Your task to perform on an android device: choose inbox layout in the gmail app Image 0: 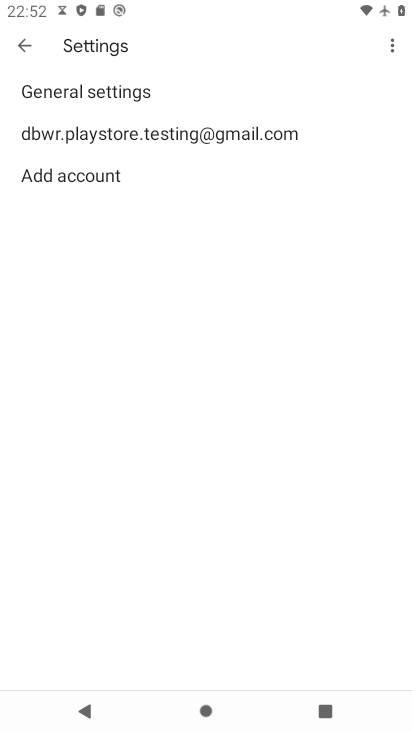
Step 0: press back button
Your task to perform on an android device: choose inbox layout in the gmail app Image 1: 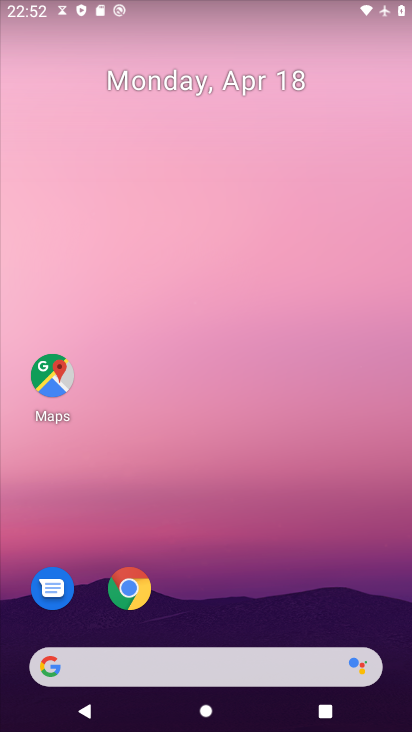
Step 1: drag from (282, 576) to (253, 17)
Your task to perform on an android device: choose inbox layout in the gmail app Image 2: 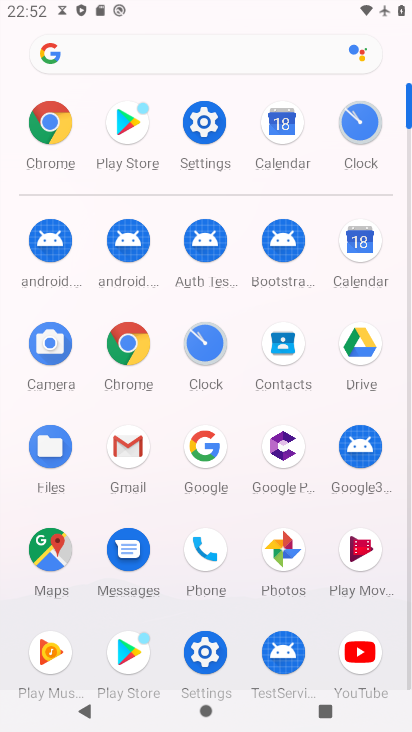
Step 2: click (127, 446)
Your task to perform on an android device: choose inbox layout in the gmail app Image 3: 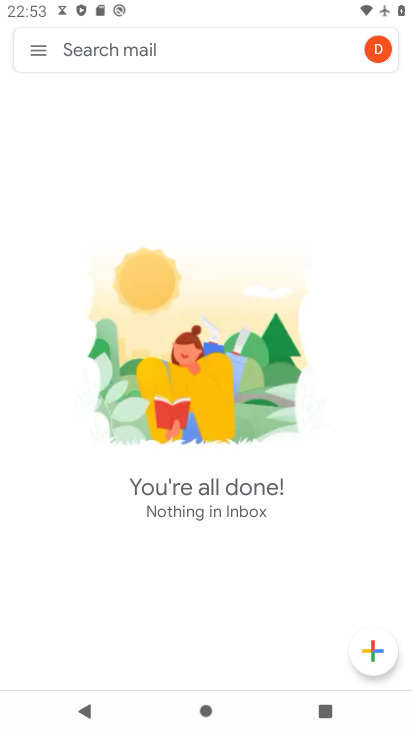
Step 3: click (48, 50)
Your task to perform on an android device: choose inbox layout in the gmail app Image 4: 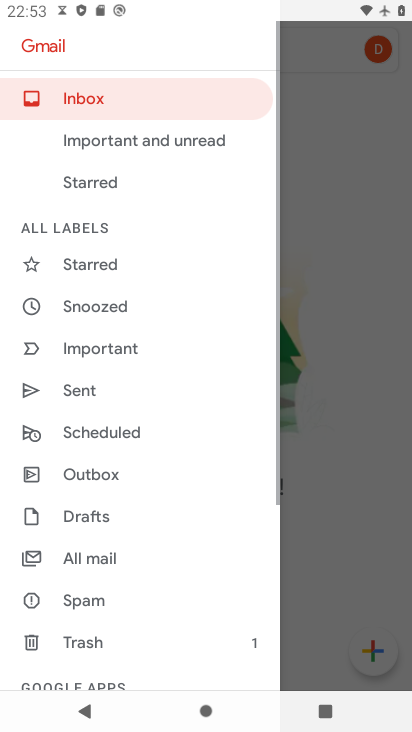
Step 4: drag from (141, 525) to (164, 130)
Your task to perform on an android device: choose inbox layout in the gmail app Image 5: 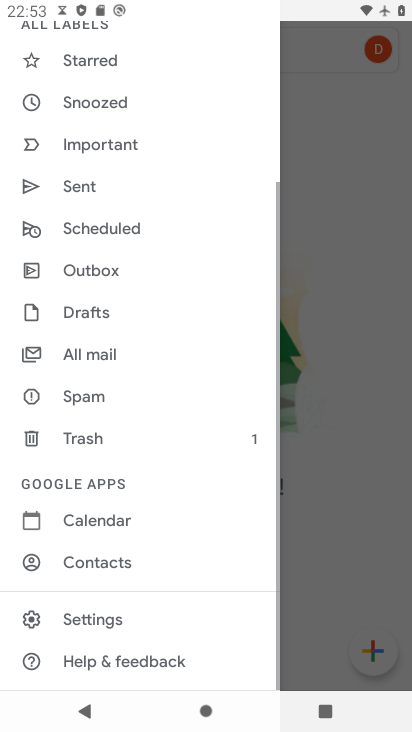
Step 5: drag from (153, 559) to (151, 333)
Your task to perform on an android device: choose inbox layout in the gmail app Image 6: 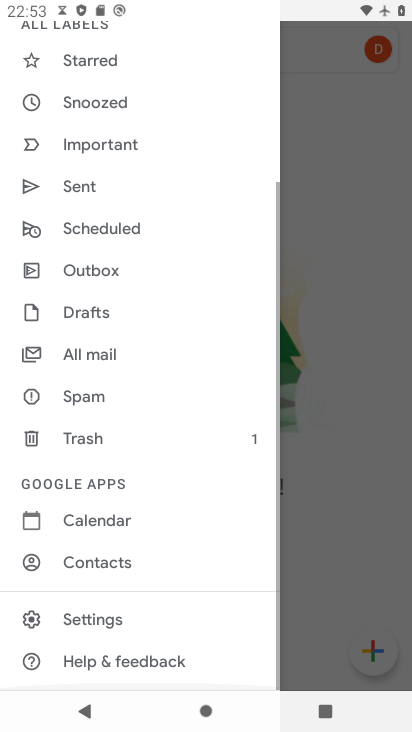
Step 6: click (115, 622)
Your task to perform on an android device: choose inbox layout in the gmail app Image 7: 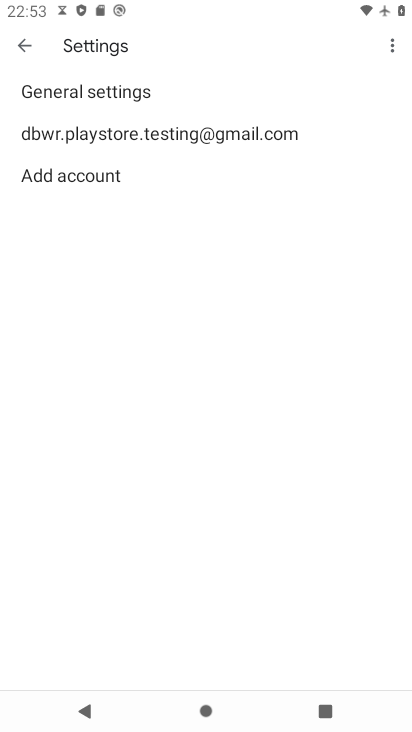
Step 7: click (110, 133)
Your task to perform on an android device: choose inbox layout in the gmail app Image 8: 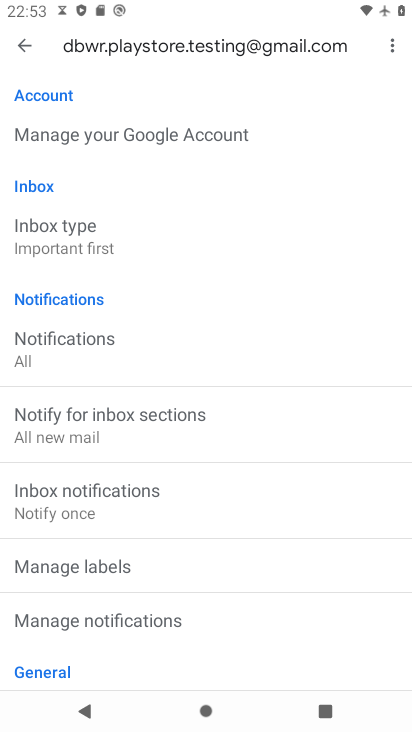
Step 8: click (105, 228)
Your task to perform on an android device: choose inbox layout in the gmail app Image 9: 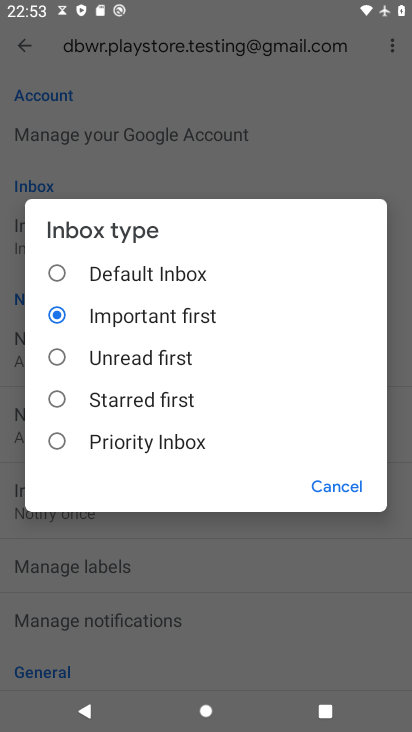
Step 9: click (168, 437)
Your task to perform on an android device: choose inbox layout in the gmail app Image 10: 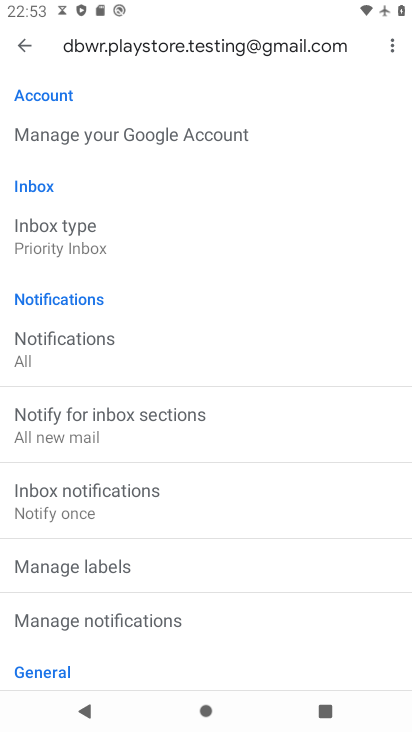
Step 10: task complete